Your task to perform on an android device: turn on the 24-hour format for clock Image 0: 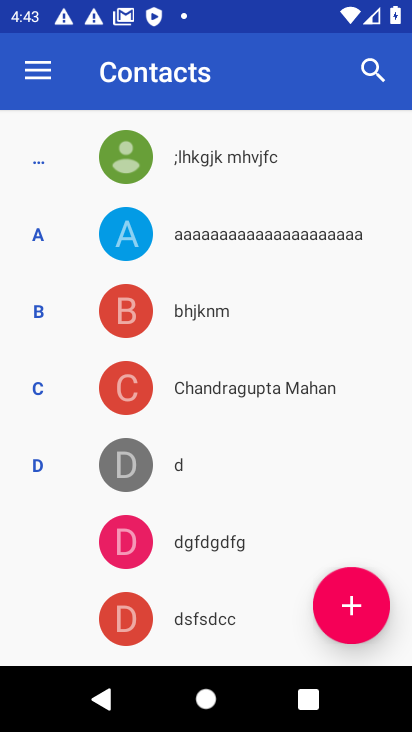
Step 0: press home button
Your task to perform on an android device: turn on the 24-hour format for clock Image 1: 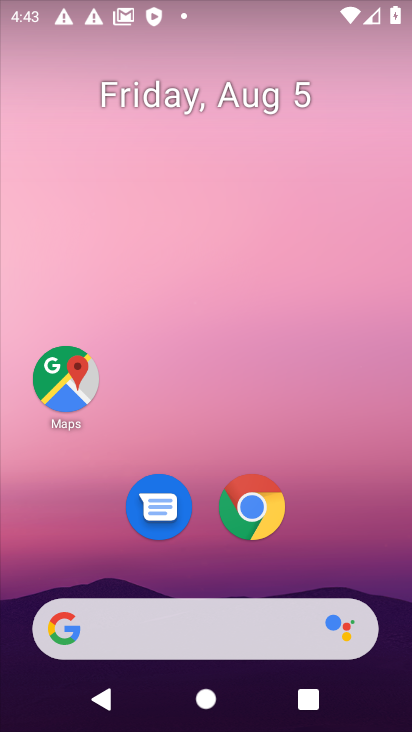
Step 1: drag from (123, 622) to (120, 263)
Your task to perform on an android device: turn on the 24-hour format for clock Image 2: 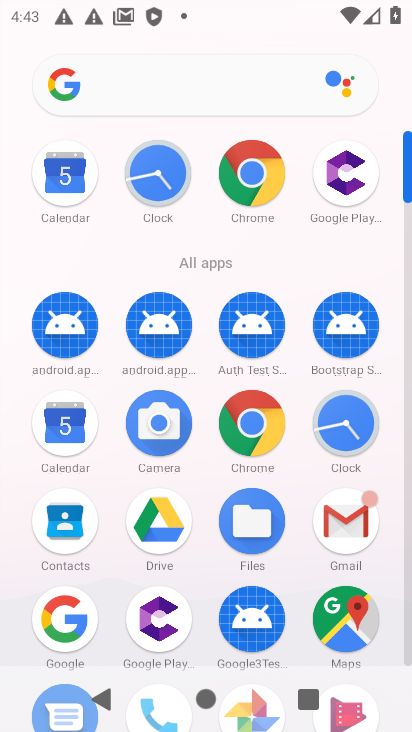
Step 2: click (333, 424)
Your task to perform on an android device: turn on the 24-hour format for clock Image 3: 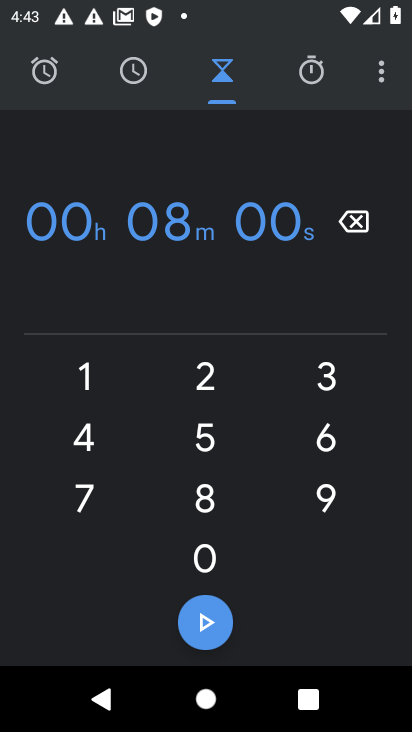
Step 3: click (379, 85)
Your task to perform on an android device: turn on the 24-hour format for clock Image 4: 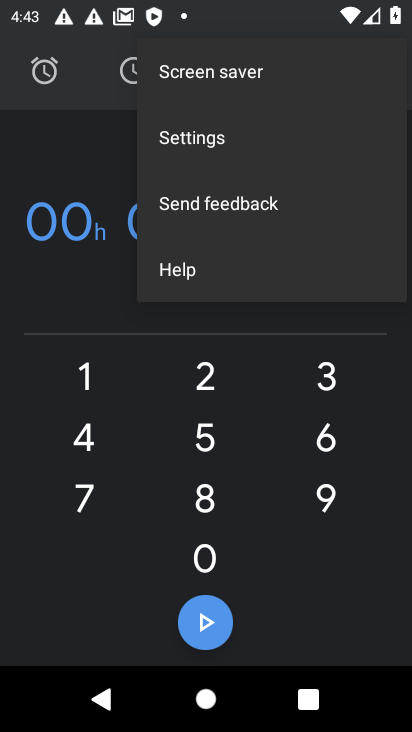
Step 4: click (203, 132)
Your task to perform on an android device: turn on the 24-hour format for clock Image 5: 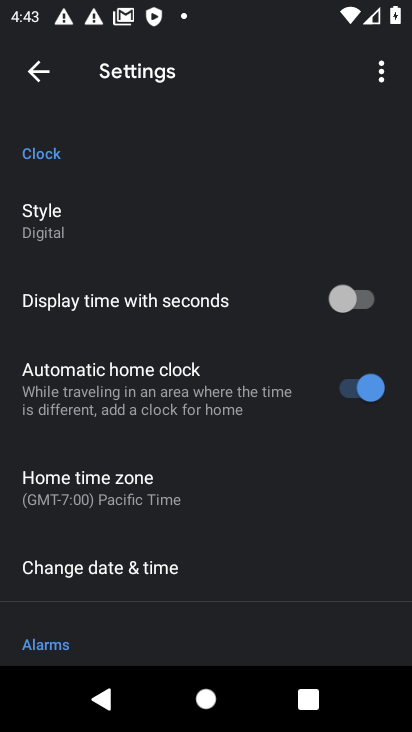
Step 5: click (127, 571)
Your task to perform on an android device: turn on the 24-hour format for clock Image 6: 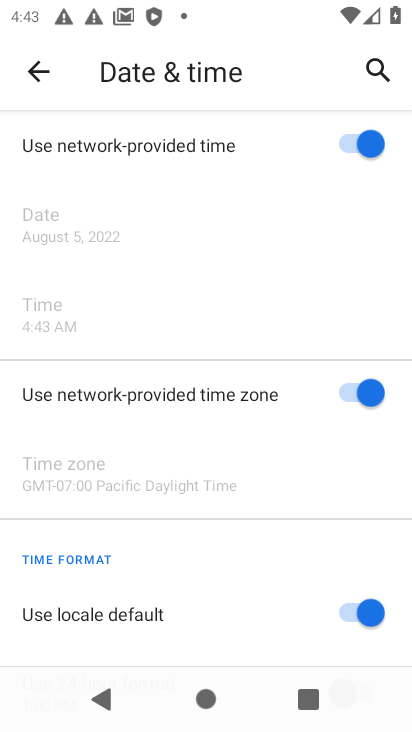
Step 6: drag from (204, 597) to (178, 264)
Your task to perform on an android device: turn on the 24-hour format for clock Image 7: 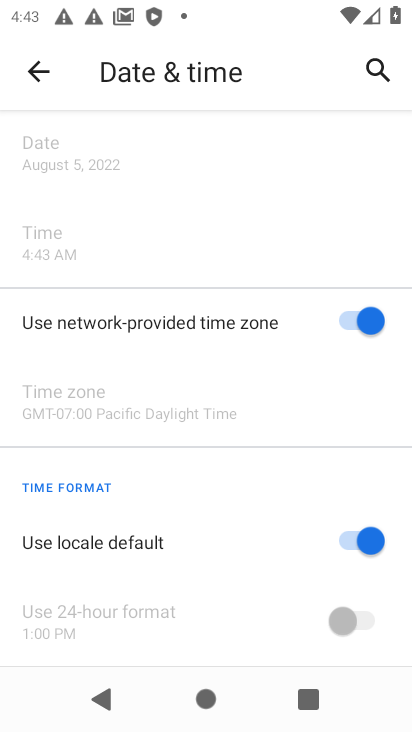
Step 7: click (353, 621)
Your task to perform on an android device: turn on the 24-hour format for clock Image 8: 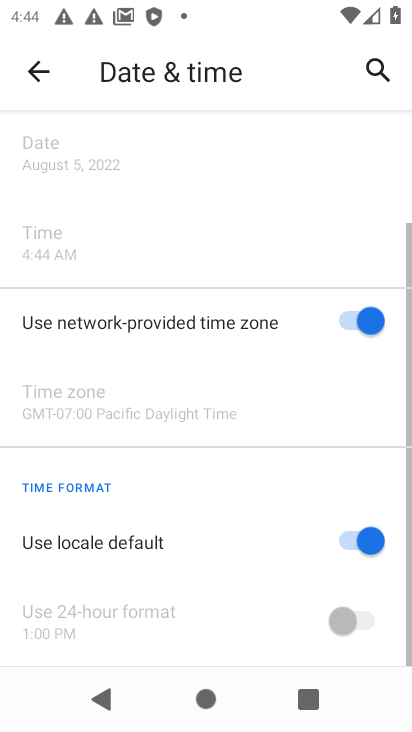
Step 8: click (353, 538)
Your task to perform on an android device: turn on the 24-hour format for clock Image 9: 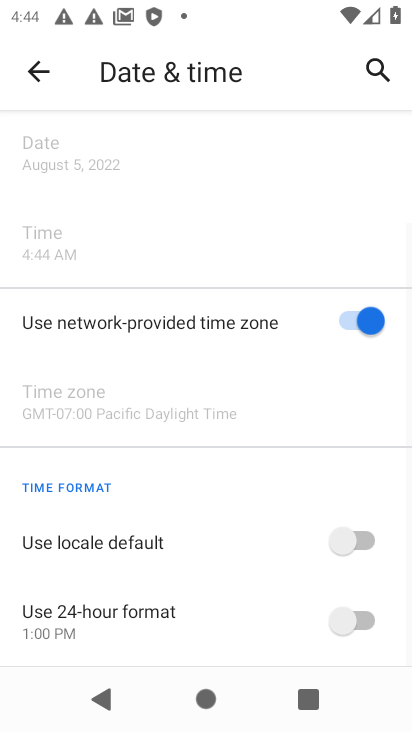
Step 9: click (358, 621)
Your task to perform on an android device: turn on the 24-hour format for clock Image 10: 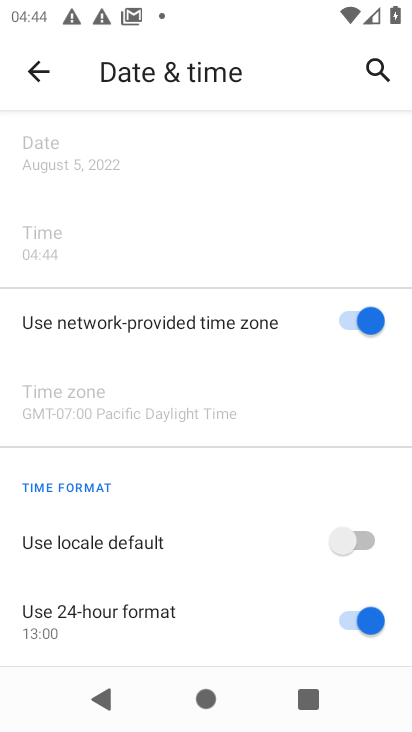
Step 10: task complete